Your task to perform on an android device: open app "File Manager" (install if not already installed) Image 0: 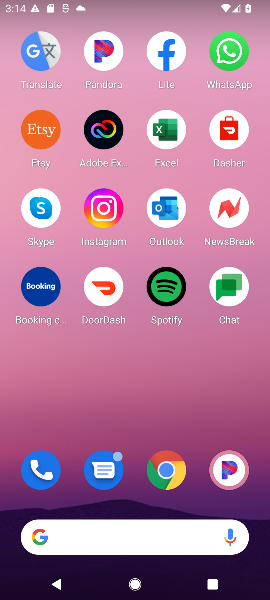
Step 0: drag from (130, 65) to (122, 518)
Your task to perform on an android device: open app "File Manager" (install if not already installed) Image 1: 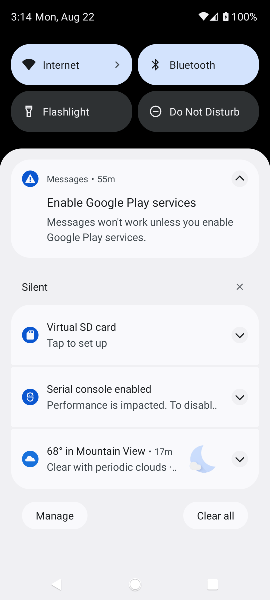
Step 1: press home button
Your task to perform on an android device: open app "File Manager" (install if not already installed) Image 2: 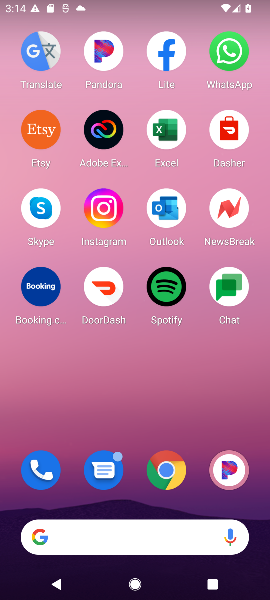
Step 2: drag from (142, 517) to (123, 94)
Your task to perform on an android device: open app "File Manager" (install if not already installed) Image 3: 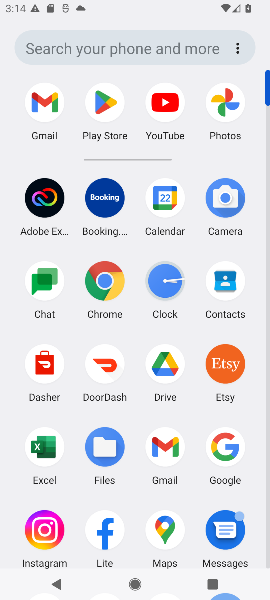
Step 3: drag from (74, 513) to (96, 184)
Your task to perform on an android device: open app "File Manager" (install if not already installed) Image 4: 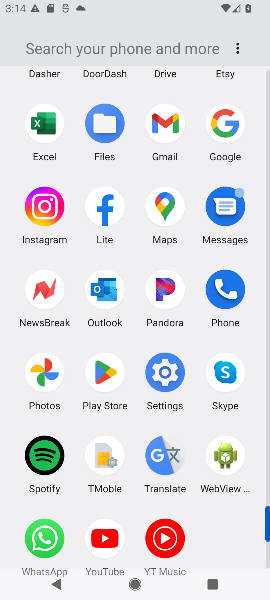
Step 4: click (92, 367)
Your task to perform on an android device: open app "File Manager" (install if not already installed) Image 5: 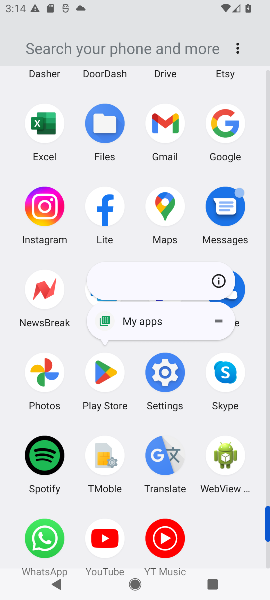
Step 5: click (92, 369)
Your task to perform on an android device: open app "File Manager" (install if not already installed) Image 6: 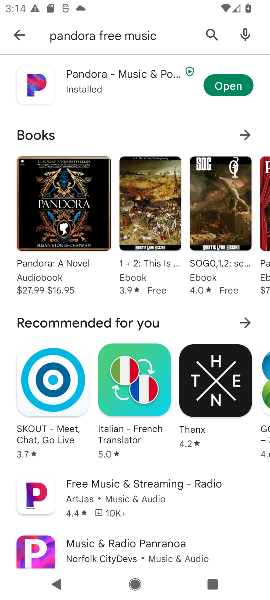
Step 6: click (7, 18)
Your task to perform on an android device: open app "File Manager" (install if not already installed) Image 7: 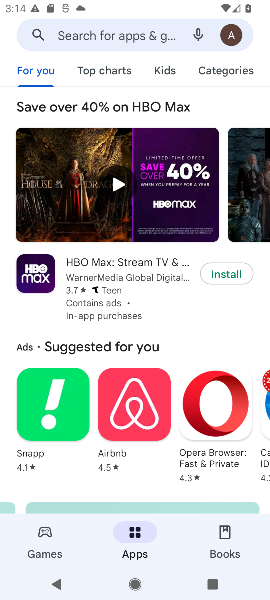
Step 7: click (112, 30)
Your task to perform on an android device: open app "File Manager" (install if not already installed) Image 8: 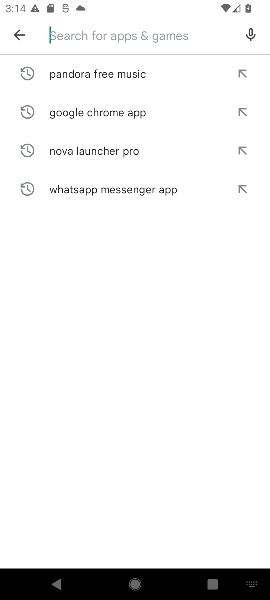
Step 8: type "File Manager "
Your task to perform on an android device: open app "File Manager" (install if not already installed) Image 9: 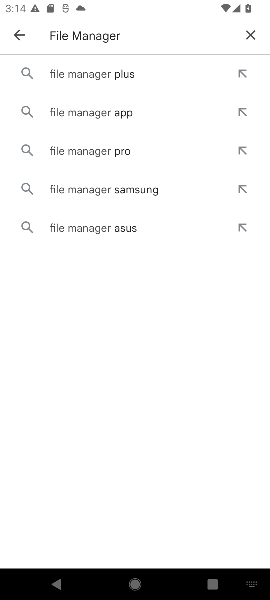
Step 9: click (114, 73)
Your task to perform on an android device: open app "File Manager" (install if not already installed) Image 10: 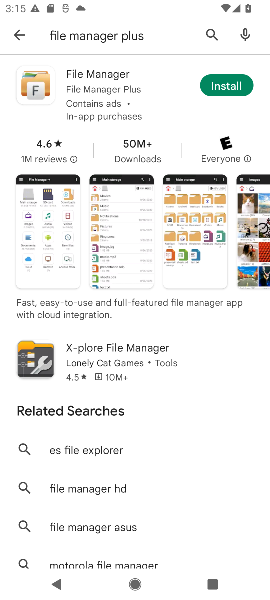
Step 10: click (232, 85)
Your task to perform on an android device: open app "File Manager" (install if not already installed) Image 11: 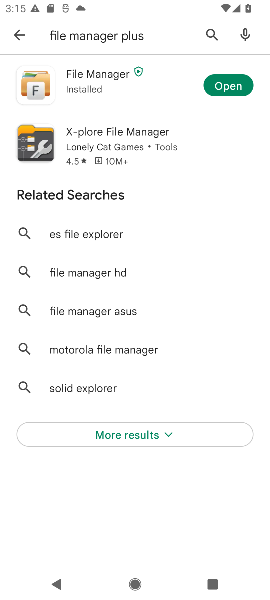
Step 11: click (232, 85)
Your task to perform on an android device: open app "File Manager" (install if not already installed) Image 12: 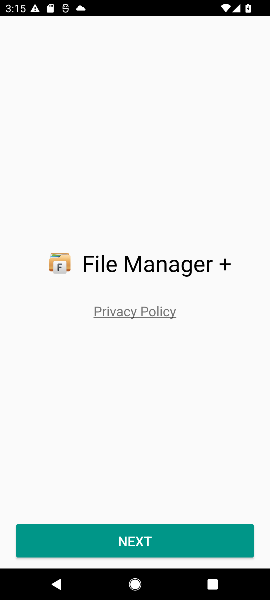
Step 12: task complete